Your task to perform on an android device: check battery use Image 0: 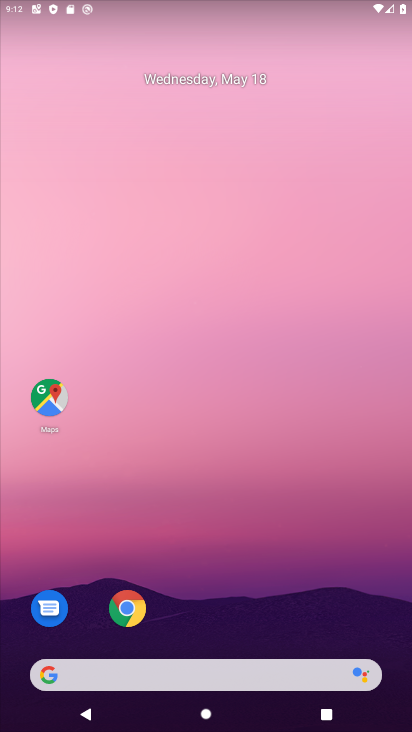
Step 0: drag from (33, 567) to (268, 164)
Your task to perform on an android device: check battery use Image 1: 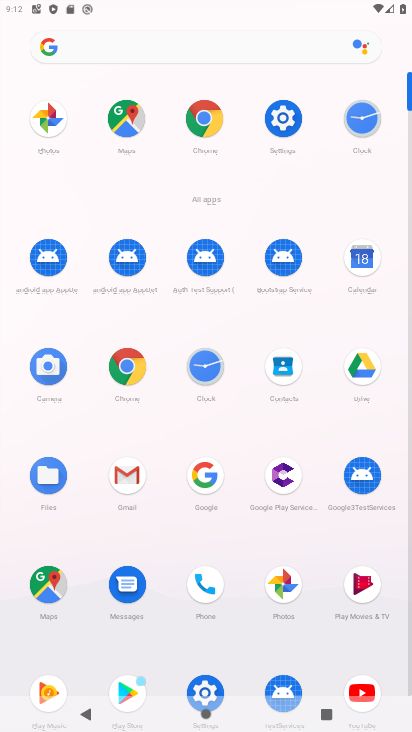
Step 1: click (286, 122)
Your task to perform on an android device: check battery use Image 2: 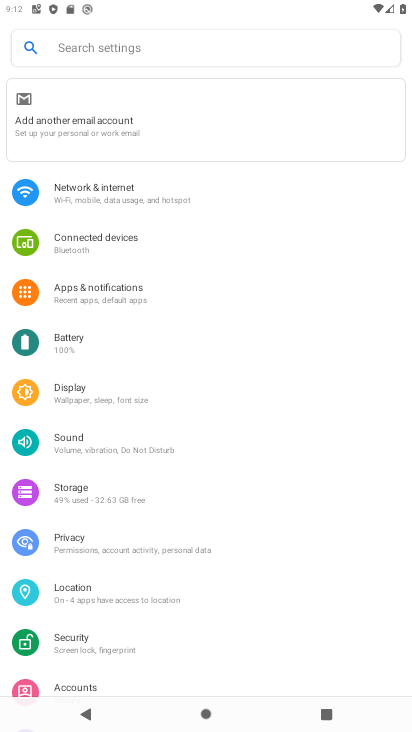
Step 2: click (91, 346)
Your task to perform on an android device: check battery use Image 3: 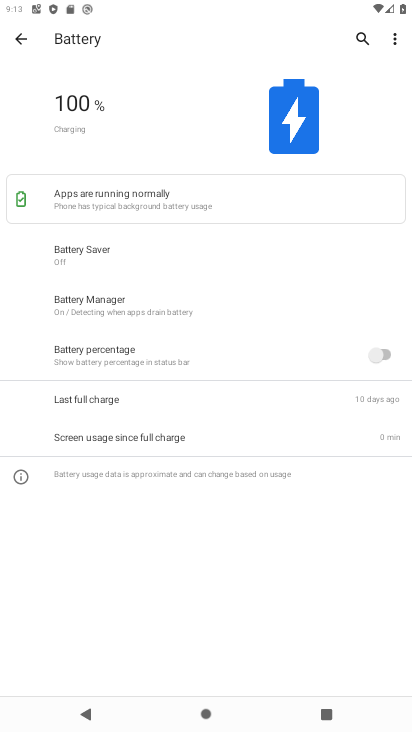
Step 3: task complete